Your task to perform on an android device: Open network settings Image 0: 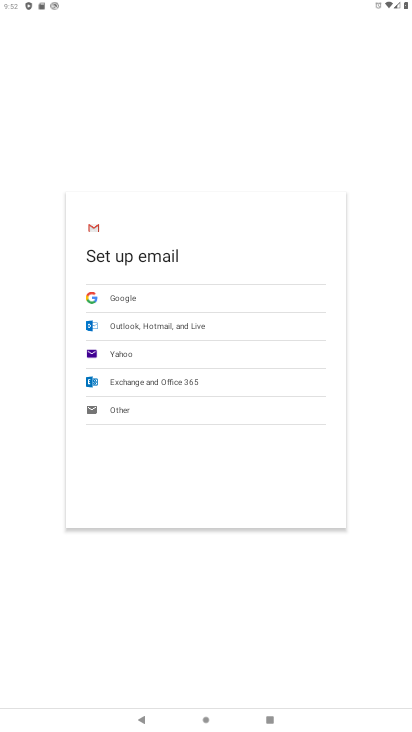
Step 0: press home button
Your task to perform on an android device: Open network settings Image 1: 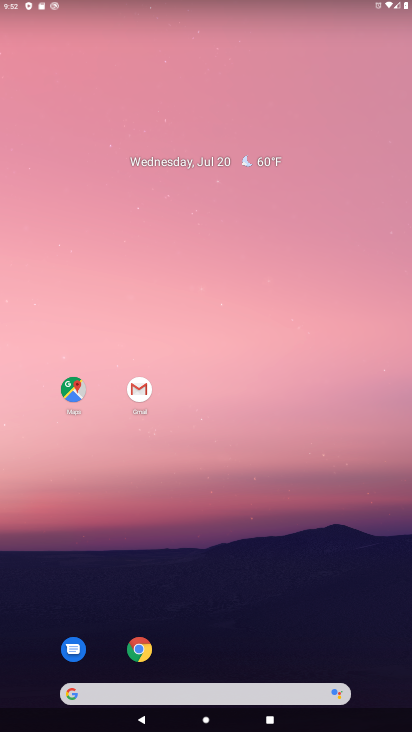
Step 1: drag from (375, 666) to (315, 123)
Your task to perform on an android device: Open network settings Image 2: 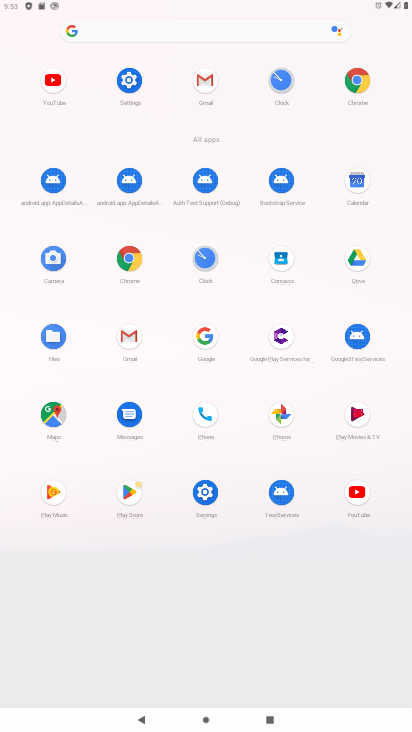
Step 2: click (205, 498)
Your task to perform on an android device: Open network settings Image 3: 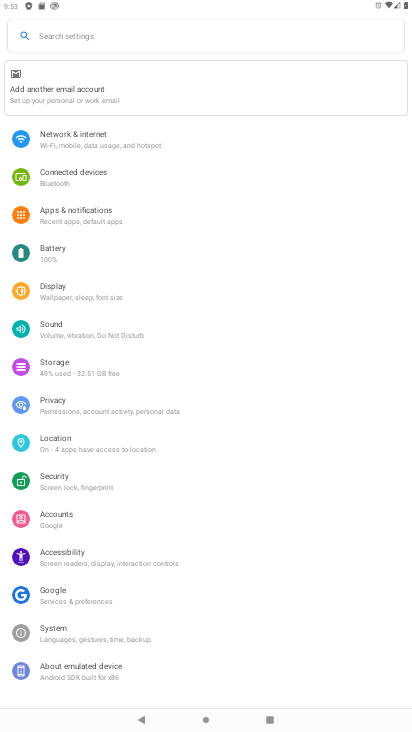
Step 3: click (93, 143)
Your task to perform on an android device: Open network settings Image 4: 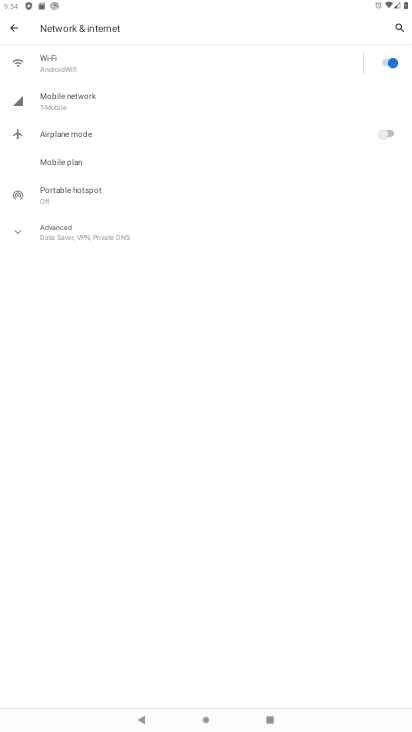
Step 4: click (42, 99)
Your task to perform on an android device: Open network settings Image 5: 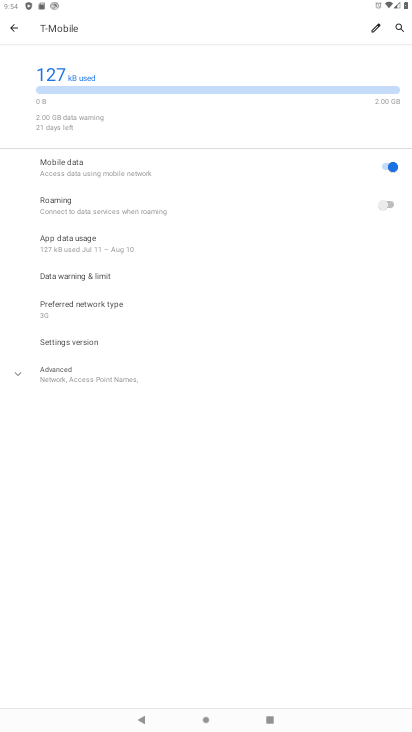
Step 5: click (15, 378)
Your task to perform on an android device: Open network settings Image 6: 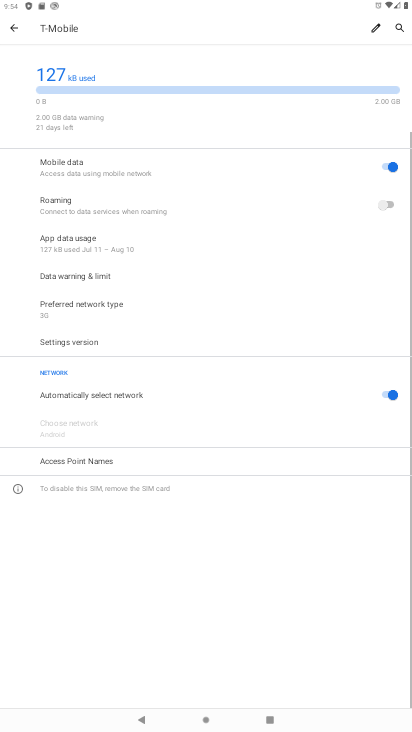
Step 6: task complete